Your task to perform on an android device: Go to ESPN.com Image 0: 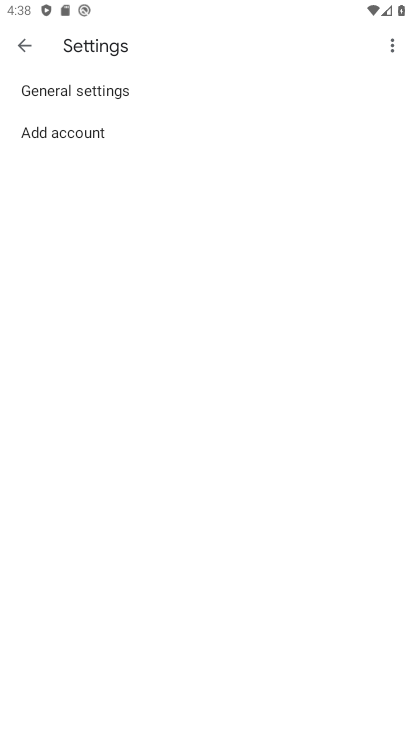
Step 0: drag from (232, 332) to (134, 10)
Your task to perform on an android device: Go to ESPN.com Image 1: 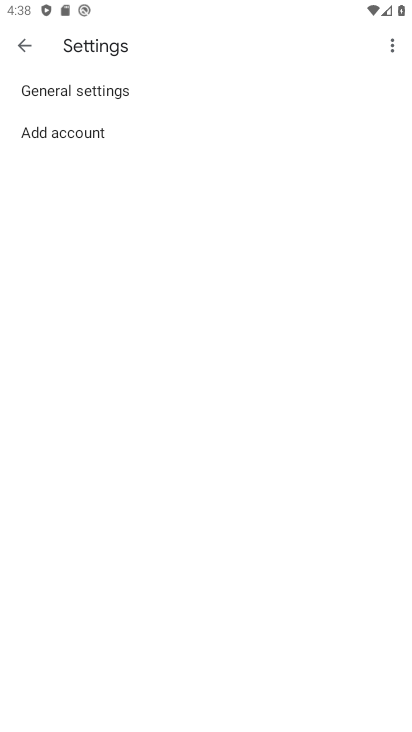
Step 1: click (16, 44)
Your task to perform on an android device: Go to ESPN.com Image 2: 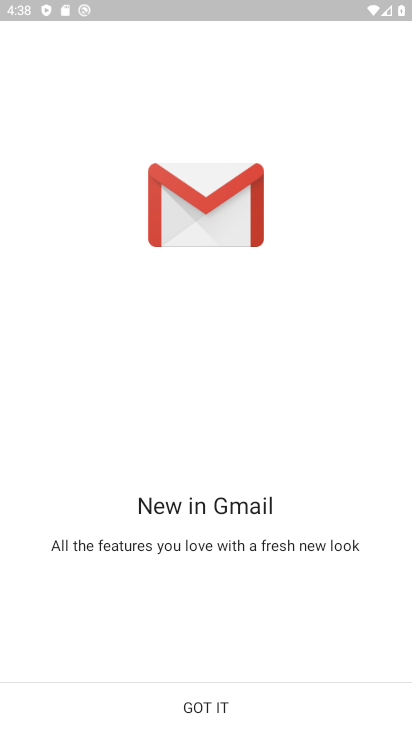
Step 2: click (250, 698)
Your task to perform on an android device: Go to ESPN.com Image 3: 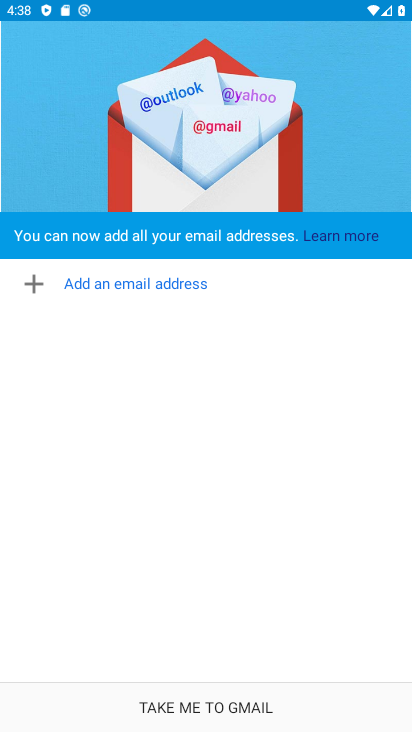
Step 3: press back button
Your task to perform on an android device: Go to ESPN.com Image 4: 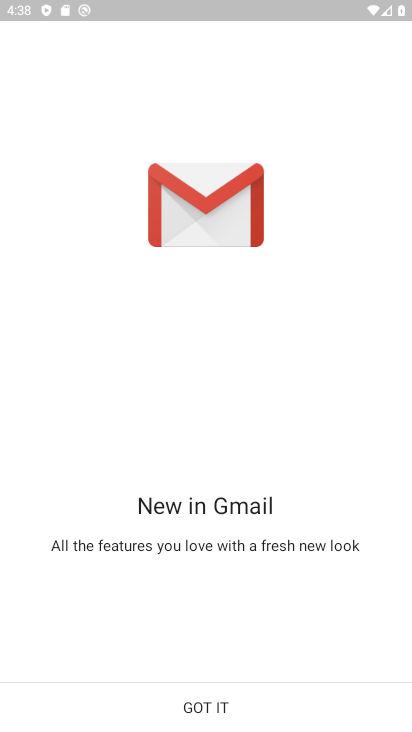
Step 4: press back button
Your task to perform on an android device: Go to ESPN.com Image 5: 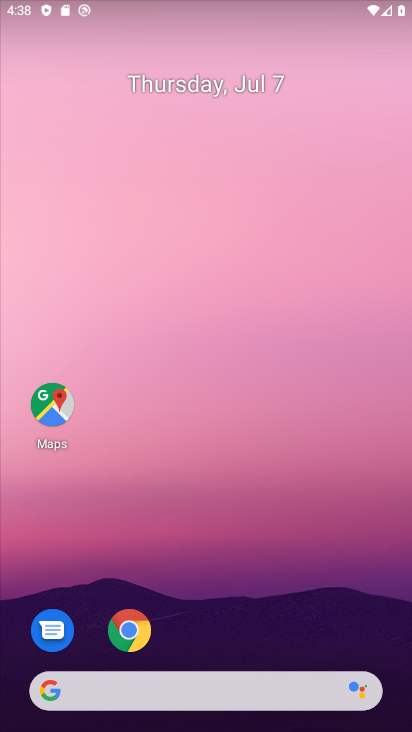
Step 5: press home button
Your task to perform on an android device: Go to ESPN.com Image 6: 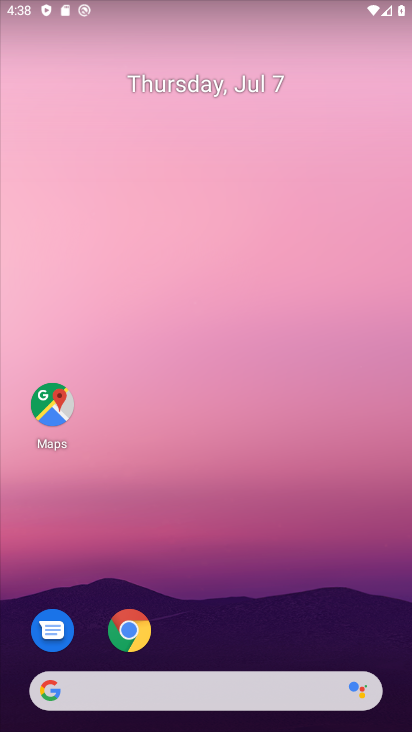
Step 6: drag from (237, 656) to (279, 41)
Your task to perform on an android device: Go to ESPN.com Image 7: 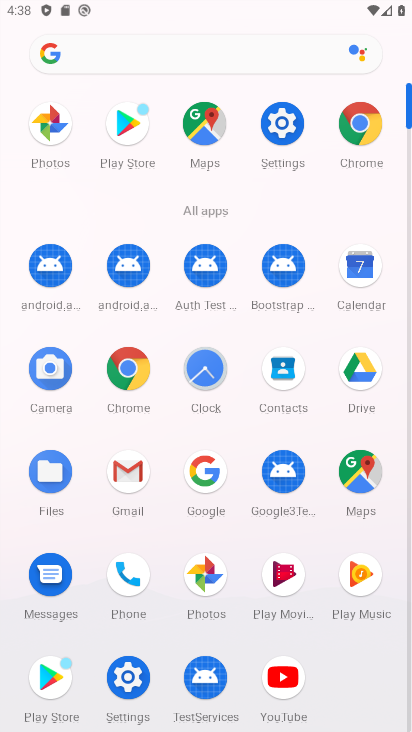
Step 7: click (280, 125)
Your task to perform on an android device: Go to ESPN.com Image 8: 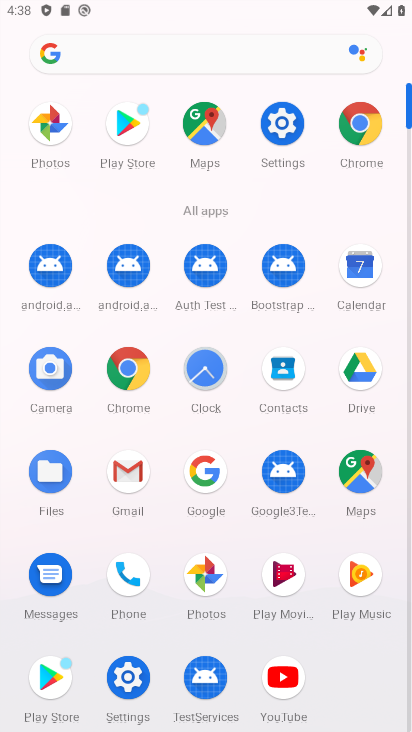
Step 8: click (288, 123)
Your task to perform on an android device: Go to ESPN.com Image 9: 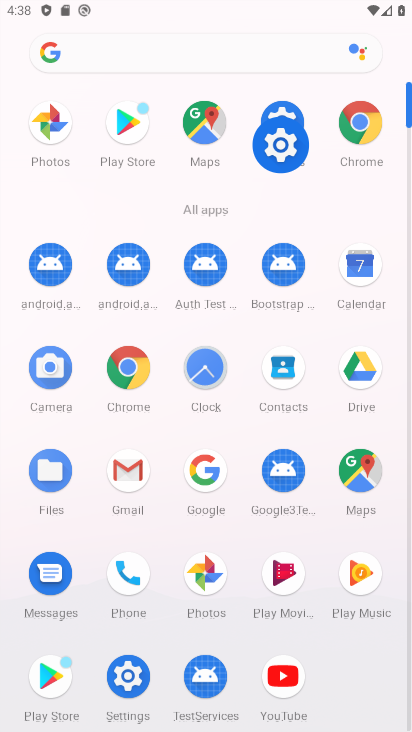
Step 9: click (292, 121)
Your task to perform on an android device: Go to ESPN.com Image 10: 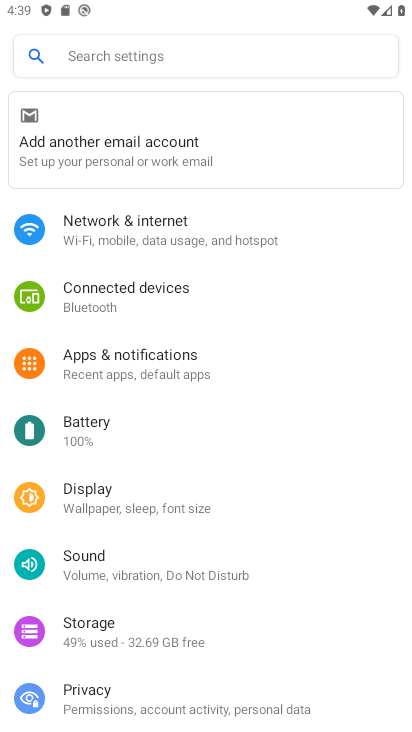
Step 10: press back button
Your task to perform on an android device: Go to ESPN.com Image 11: 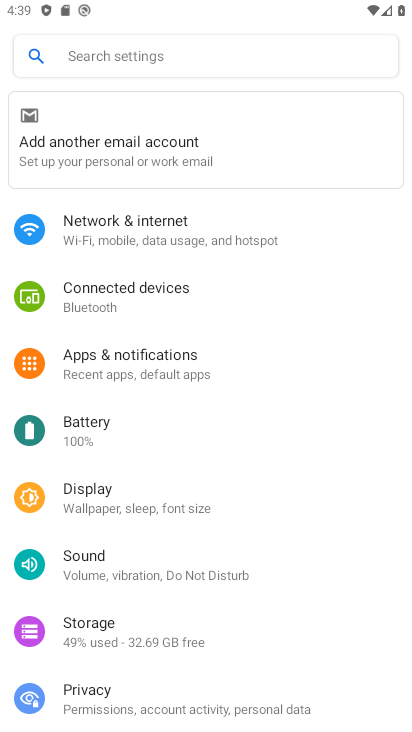
Step 11: press back button
Your task to perform on an android device: Go to ESPN.com Image 12: 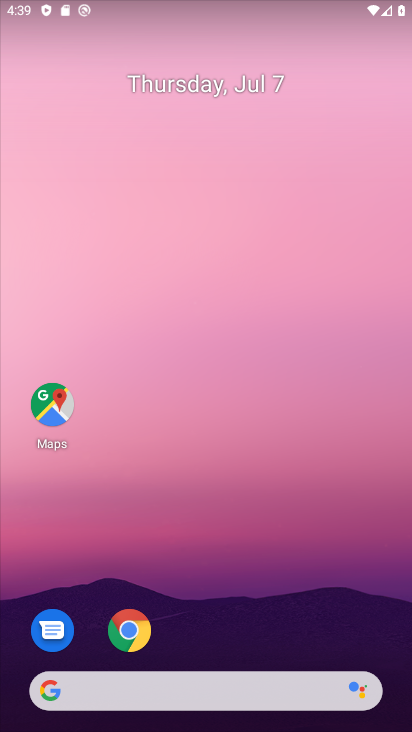
Step 12: drag from (267, 660) to (162, 118)
Your task to perform on an android device: Go to ESPN.com Image 13: 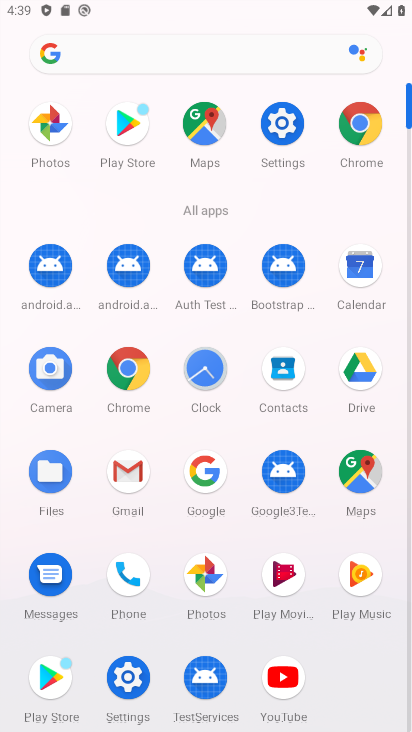
Step 13: click (353, 126)
Your task to perform on an android device: Go to ESPN.com Image 14: 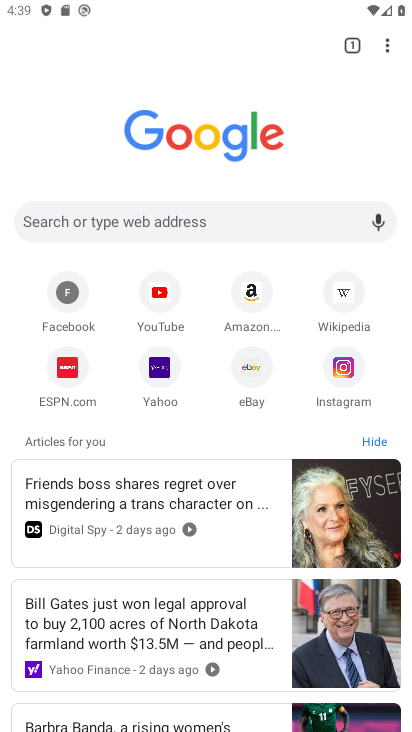
Step 14: click (63, 362)
Your task to perform on an android device: Go to ESPN.com Image 15: 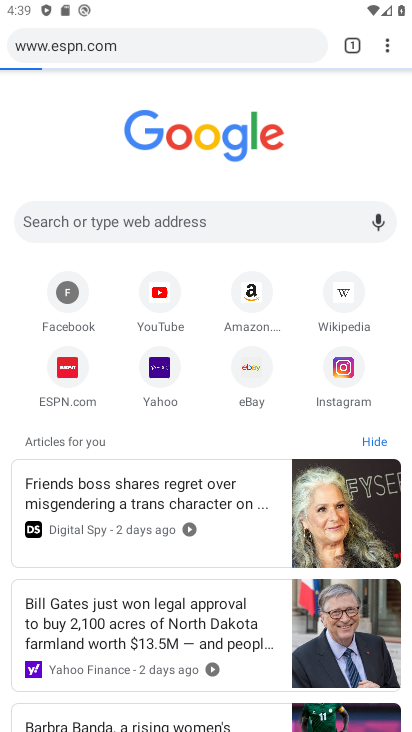
Step 15: click (67, 363)
Your task to perform on an android device: Go to ESPN.com Image 16: 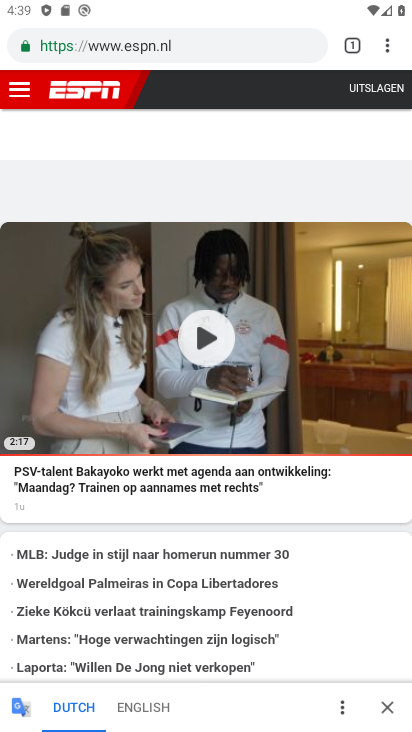
Step 16: task complete